Your task to perform on an android device: turn off smart reply in the gmail app Image 0: 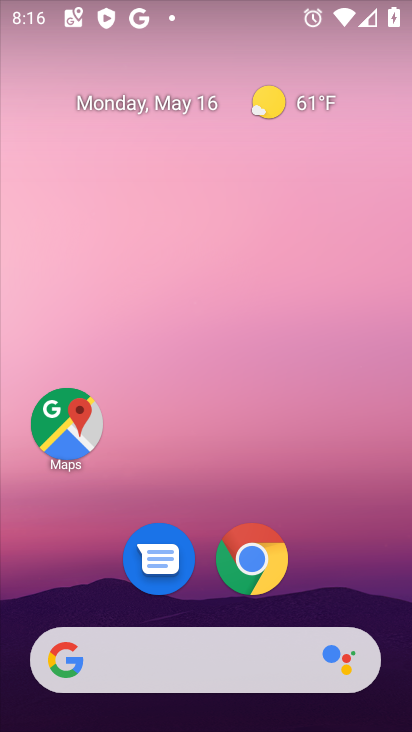
Step 0: drag from (329, 563) to (398, 110)
Your task to perform on an android device: turn off smart reply in the gmail app Image 1: 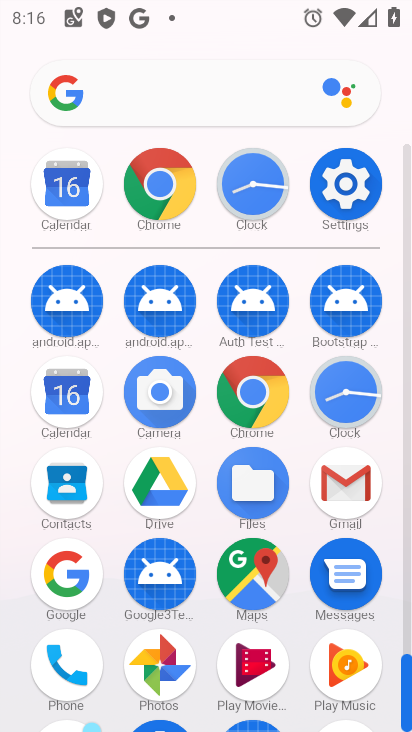
Step 1: click (327, 481)
Your task to perform on an android device: turn off smart reply in the gmail app Image 2: 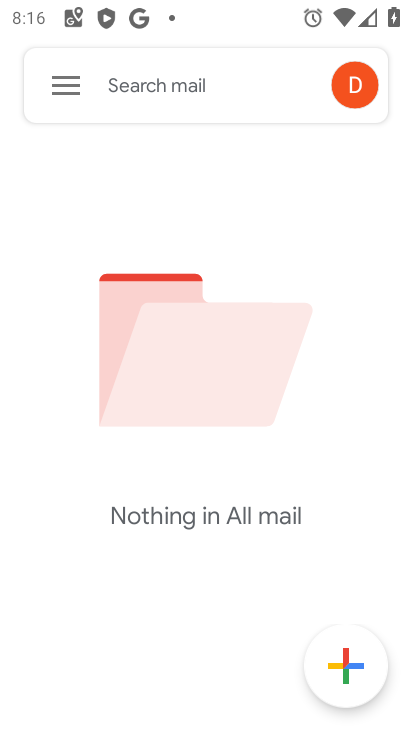
Step 2: click (58, 84)
Your task to perform on an android device: turn off smart reply in the gmail app Image 3: 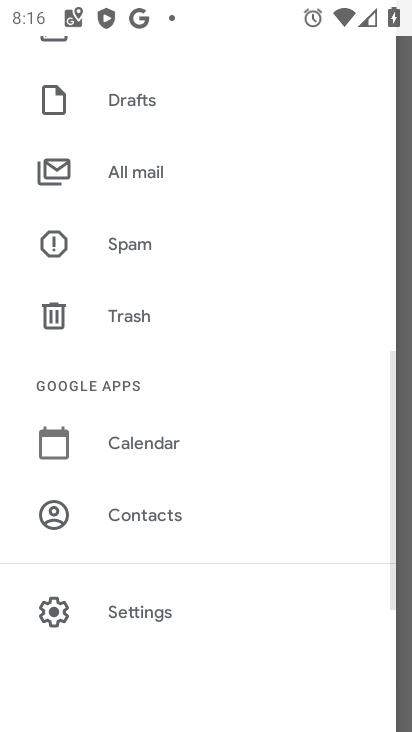
Step 3: click (129, 616)
Your task to perform on an android device: turn off smart reply in the gmail app Image 4: 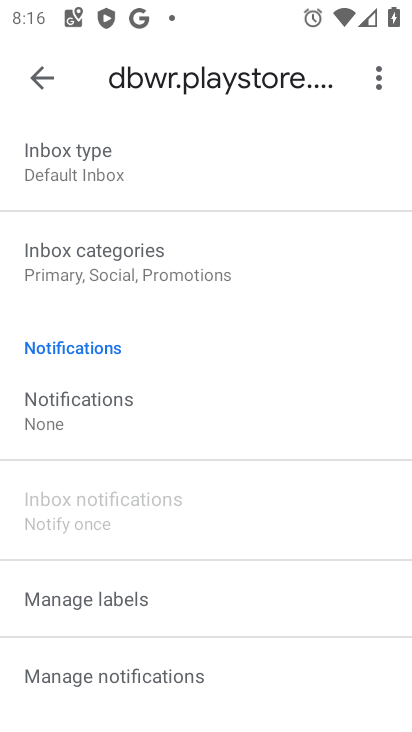
Step 4: task complete